Your task to perform on an android device: all mails in gmail Image 0: 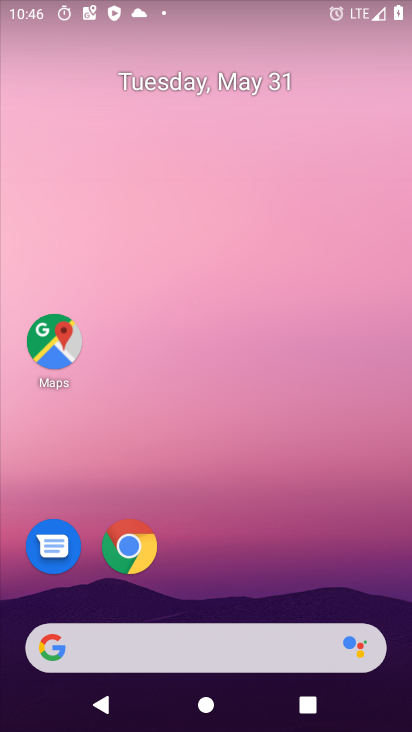
Step 0: drag from (255, 515) to (296, 90)
Your task to perform on an android device: all mails in gmail Image 1: 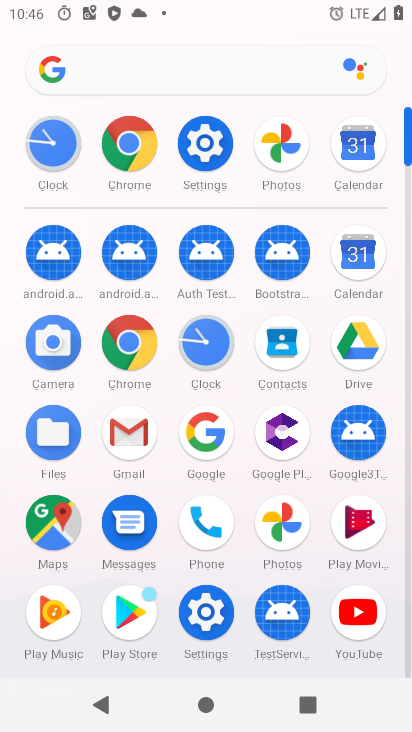
Step 1: click (125, 435)
Your task to perform on an android device: all mails in gmail Image 2: 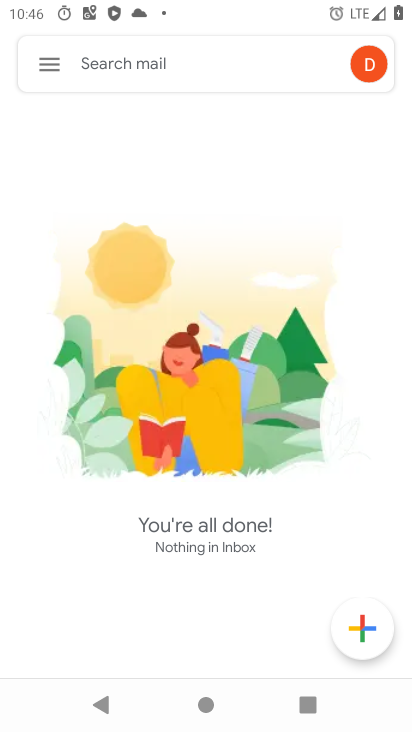
Step 2: click (43, 45)
Your task to perform on an android device: all mails in gmail Image 3: 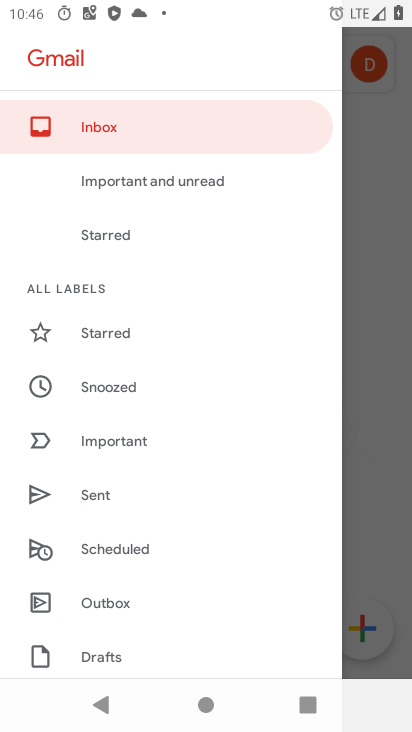
Step 3: drag from (230, 629) to (295, 209)
Your task to perform on an android device: all mails in gmail Image 4: 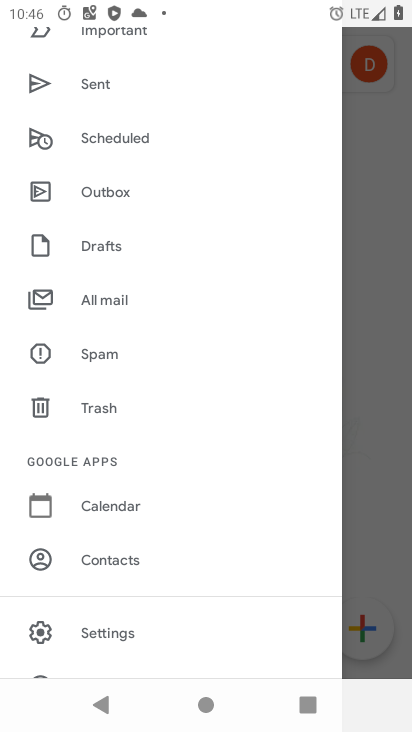
Step 4: click (89, 281)
Your task to perform on an android device: all mails in gmail Image 5: 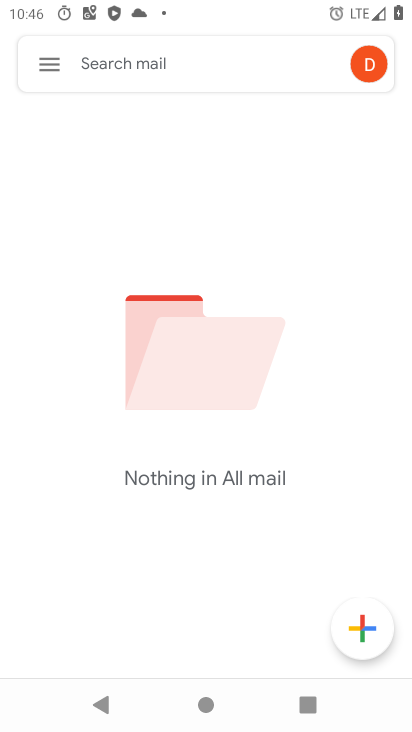
Step 5: task complete